Your task to perform on an android device: Go to Yahoo.com Image 0: 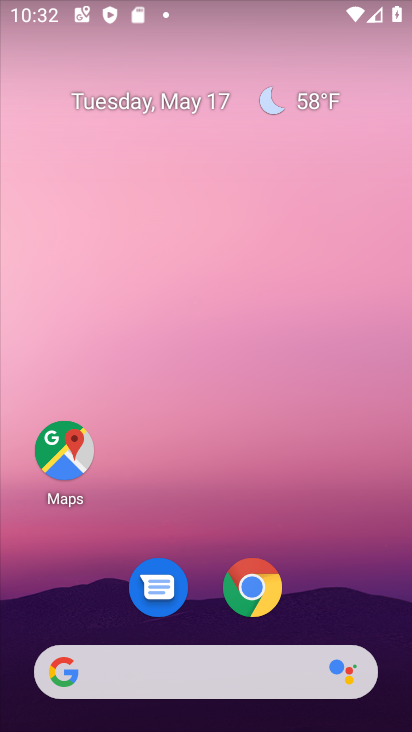
Step 0: click (251, 587)
Your task to perform on an android device: Go to Yahoo.com Image 1: 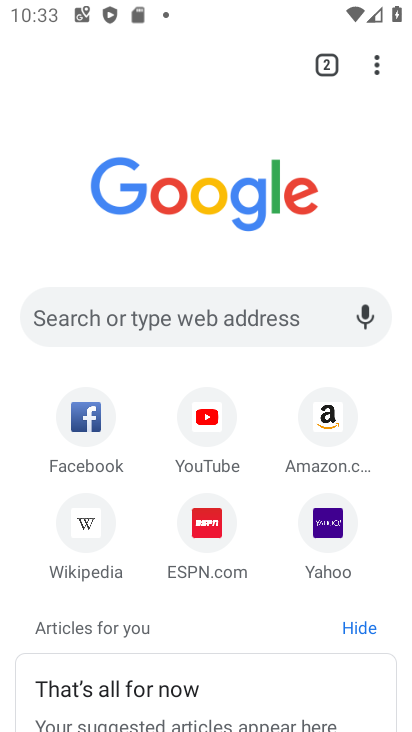
Step 1: click (188, 322)
Your task to perform on an android device: Go to Yahoo.com Image 2: 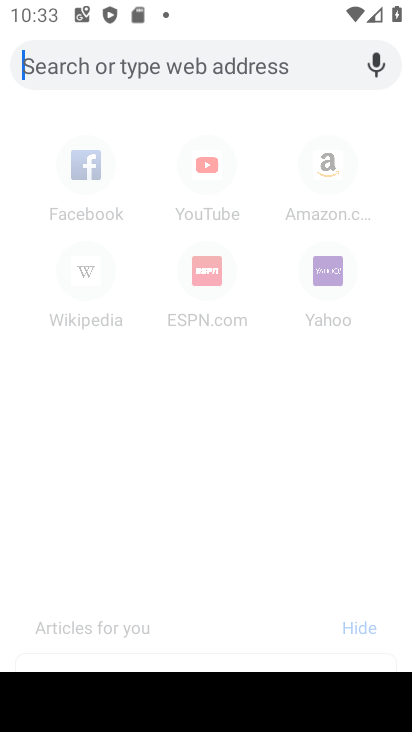
Step 2: type "Yahoo.com"
Your task to perform on an android device: Go to Yahoo.com Image 3: 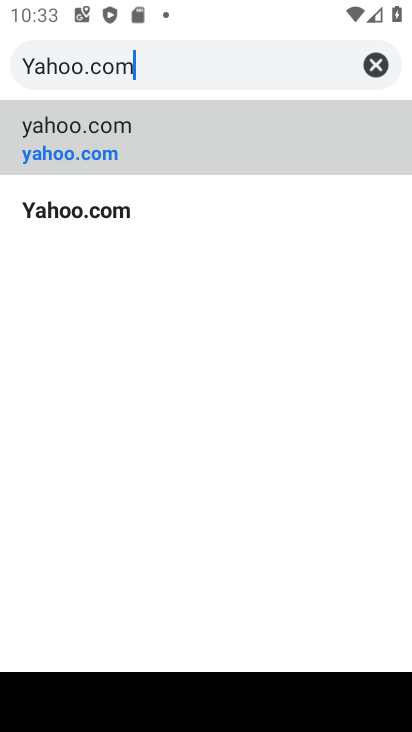
Step 3: type ""
Your task to perform on an android device: Go to Yahoo.com Image 4: 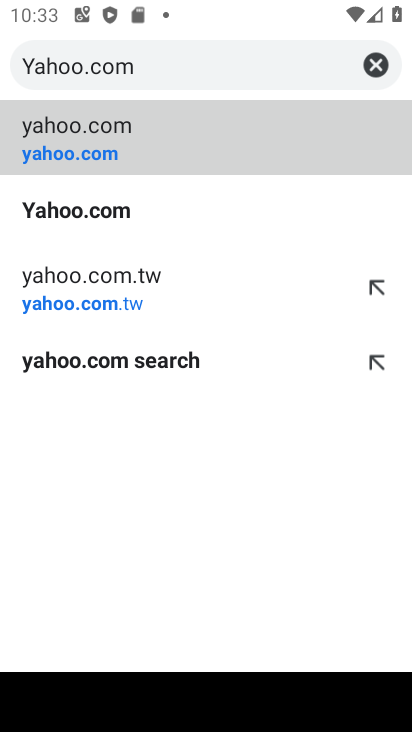
Step 4: click (130, 213)
Your task to perform on an android device: Go to Yahoo.com Image 5: 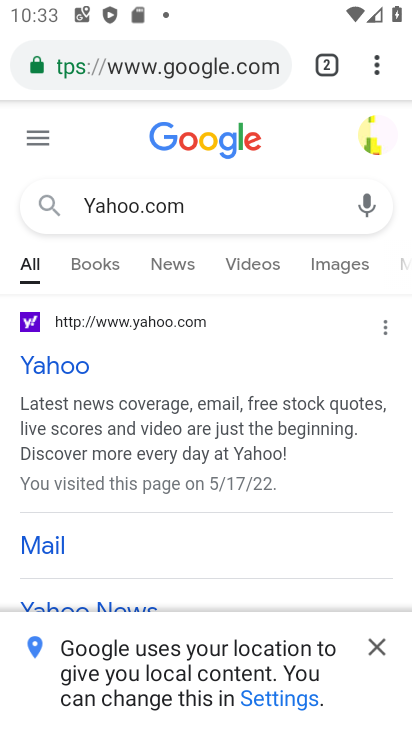
Step 5: click (65, 362)
Your task to perform on an android device: Go to Yahoo.com Image 6: 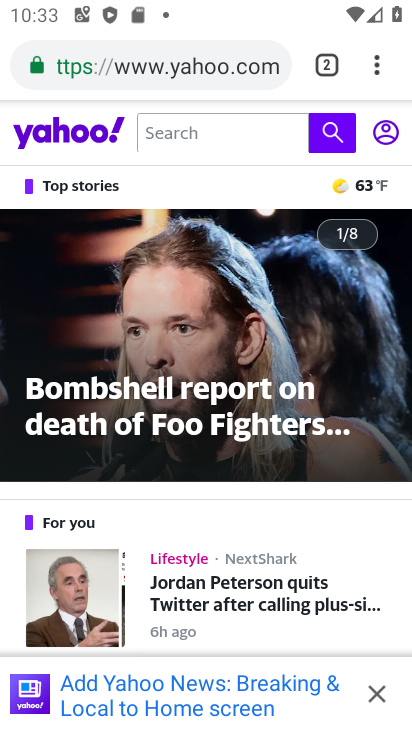
Step 6: task complete